Your task to perform on an android device: Open internet settings Image 0: 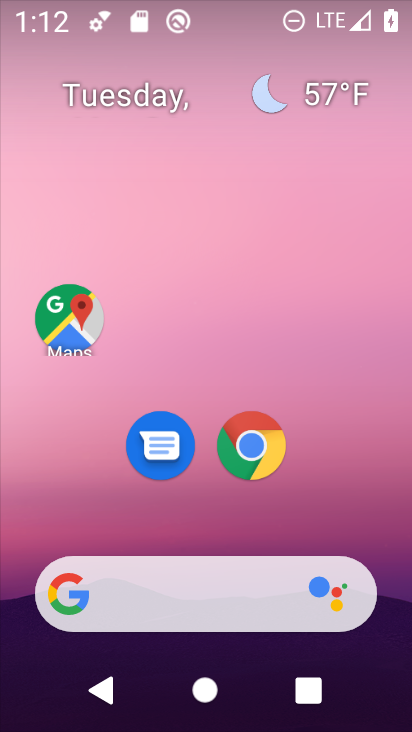
Step 0: drag from (375, 503) to (380, 189)
Your task to perform on an android device: Open internet settings Image 1: 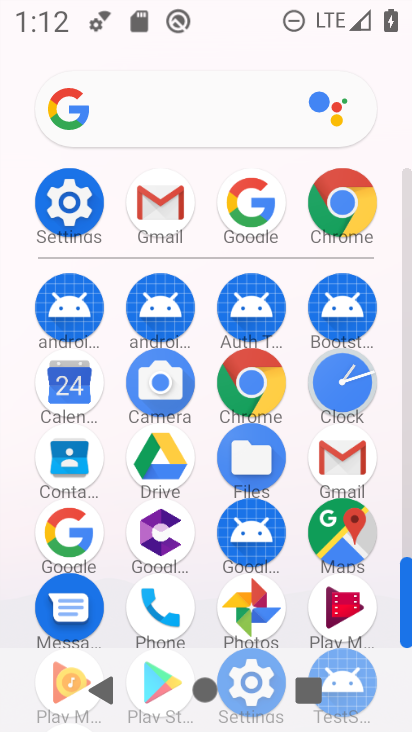
Step 1: click (70, 218)
Your task to perform on an android device: Open internet settings Image 2: 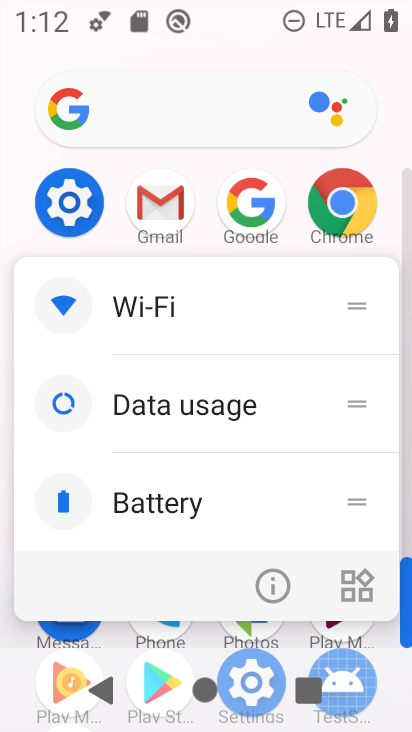
Step 2: click (70, 218)
Your task to perform on an android device: Open internet settings Image 3: 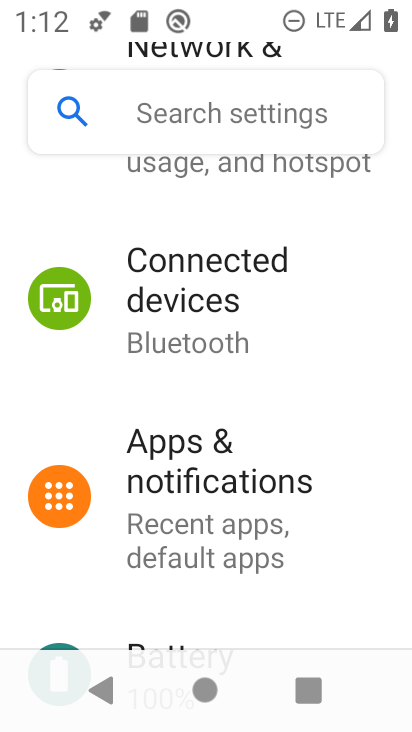
Step 3: drag from (338, 538) to (374, 431)
Your task to perform on an android device: Open internet settings Image 4: 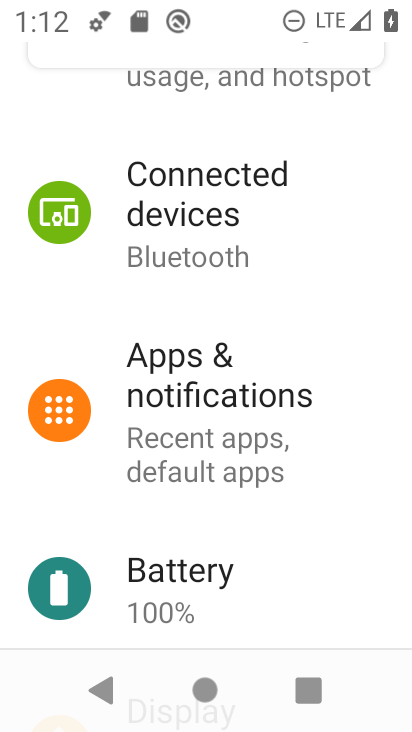
Step 4: drag from (383, 585) to (389, 431)
Your task to perform on an android device: Open internet settings Image 5: 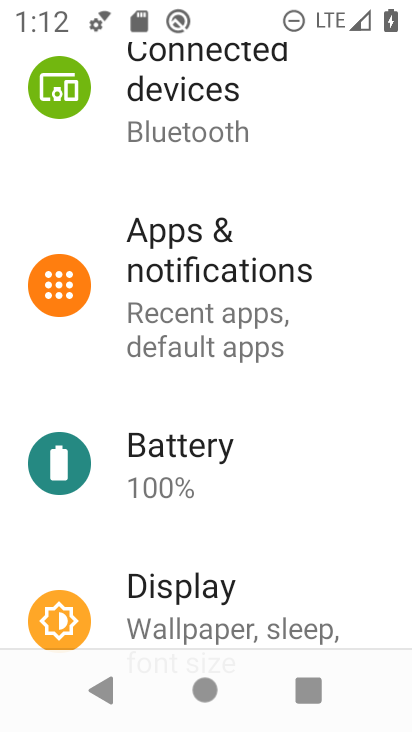
Step 5: drag from (358, 575) to (368, 423)
Your task to perform on an android device: Open internet settings Image 6: 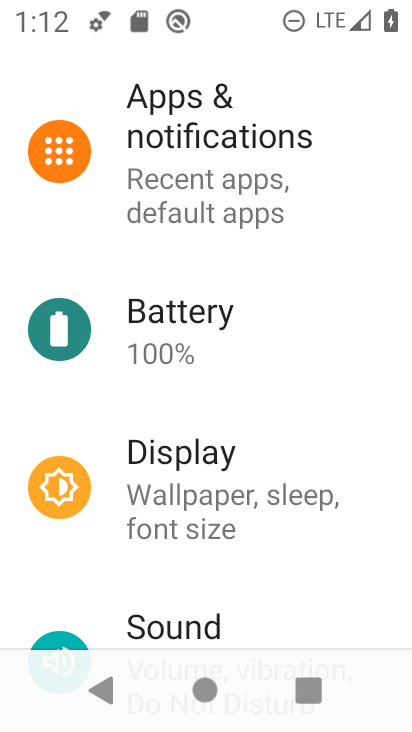
Step 6: drag from (373, 569) to (387, 460)
Your task to perform on an android device: Open internet settings Image 7: 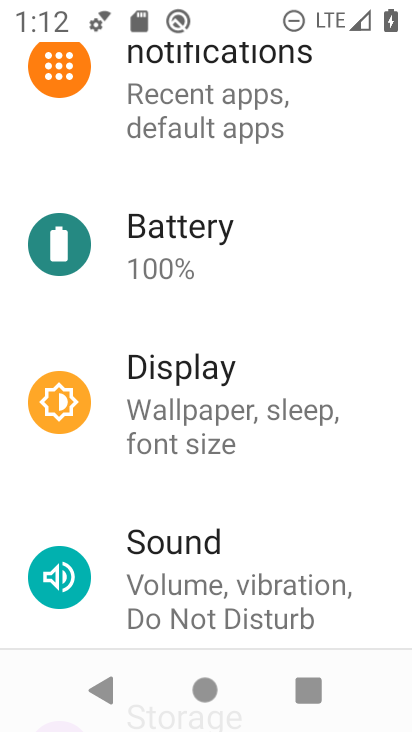
Step 7: drag from (356, 615) to (371, 486)
Your task to perform on an android device: Open internet settings Image 8: 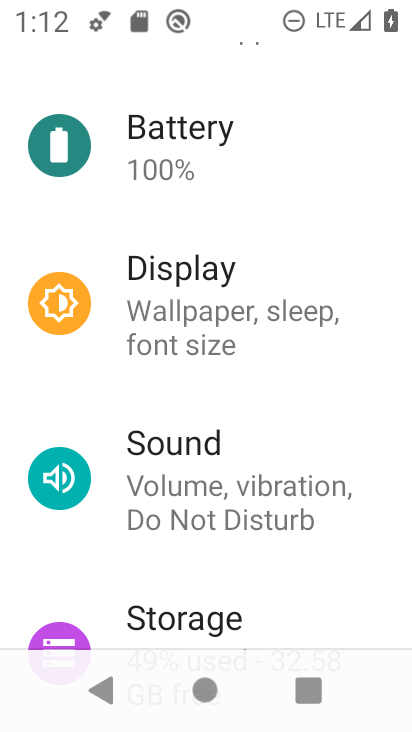
Step 8: drag from (378, 615) to (391, 479)
Your task to perform on an android device: Open internet settings Image 9: 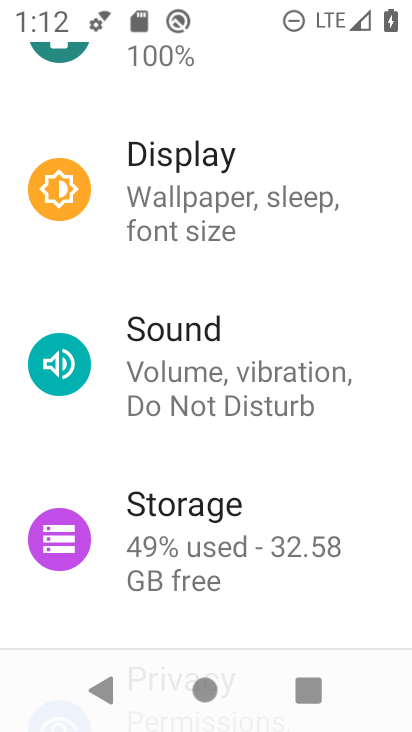
Step 9: drag from (372, 593) to (356, 400)
Your task to perform on an android device: Open internet settings Image 10: 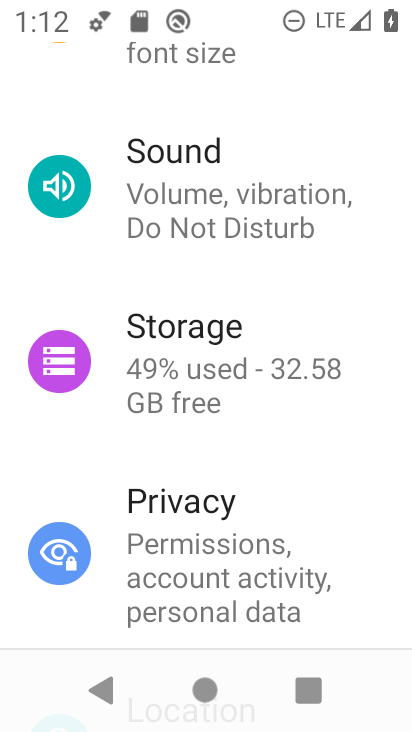
Step 10: drag from (366, 572) to (374, 406)
Your task to perform on an android device: Open internet settings Image 11: 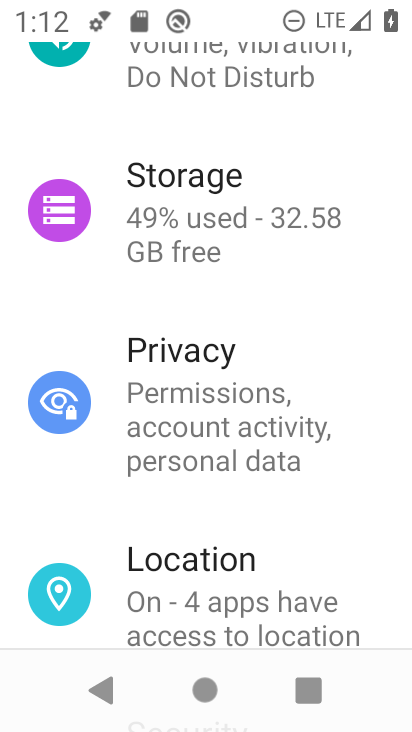
Step 11: drag from (346, 512) to (349, 336)
Your task to perform on an android device: Open internet settings Image 12: 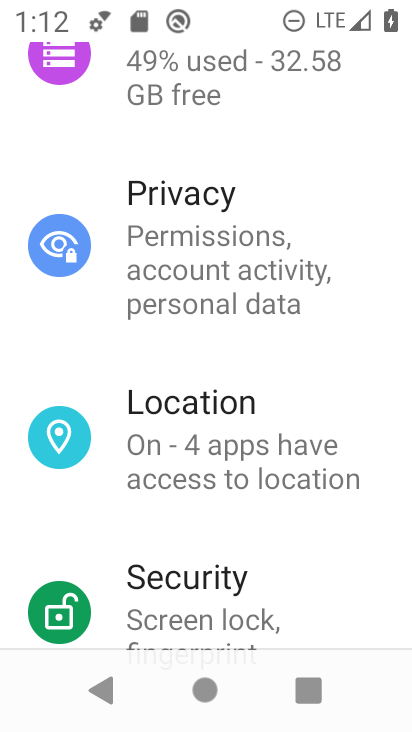
Step 12: drag from (369, 571) to (353, 400)
Your task to perform on an android device: Open internet settings Image 13: 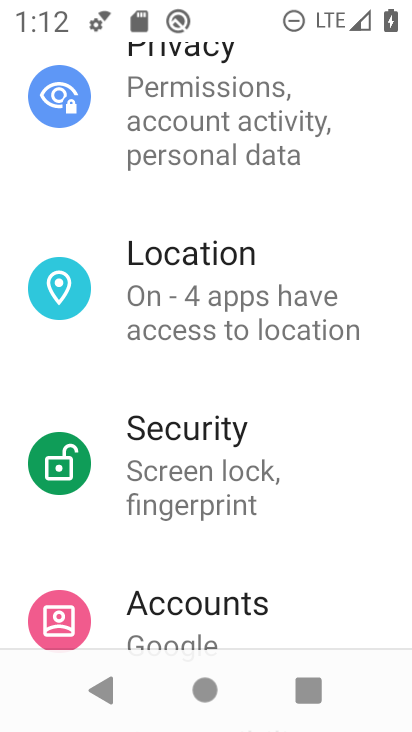
Step 13: drag from (338, 545) to (338, 365)
Your task to perform on an android device: Open internet settings Image 14: 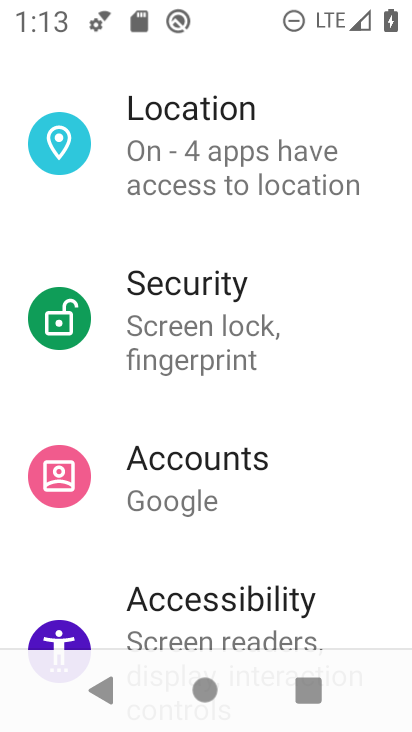
Step 14: drag from (347, 572) to (345, 422)
Your task to perform on an android device: Open internet settings Image 15: 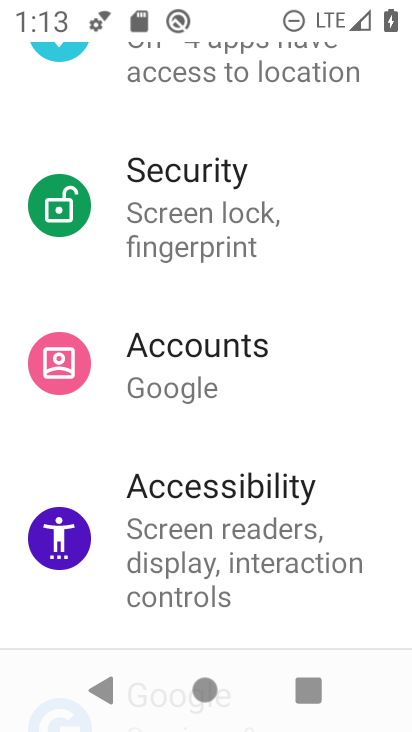
Step 15: drag from (363, 230) to (356, 410)
Your task to perform on an android device: Open internet settings Image 16: 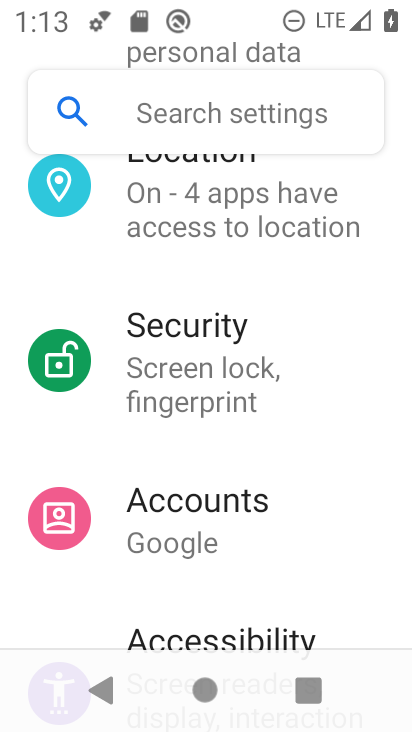
Step 16: drag from (369, 260) to (362, 414)
Your task to perform on an android device: Open internet settings Image 17: 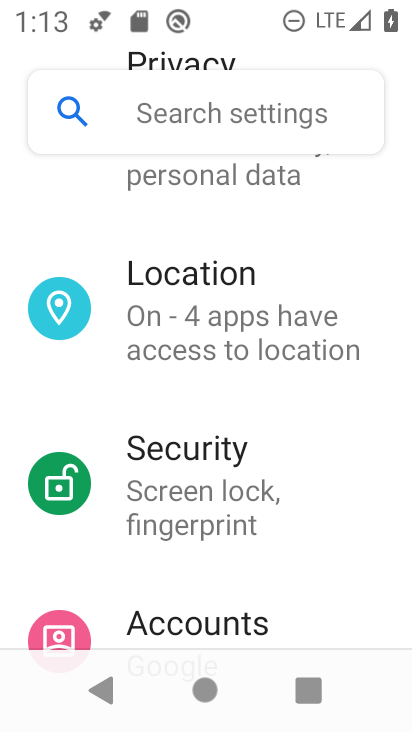
Step 17: drag from (361, 223) to (347, 461)
Your task to perform on an android device: Open internet settings Image 18: 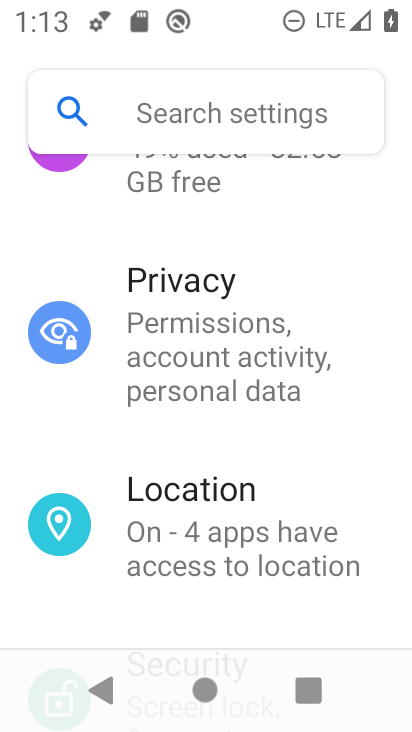
Step 18: drag from (366, 219) to (364, 447)
Your task to perform on an android device: Open internet settings Image 19: 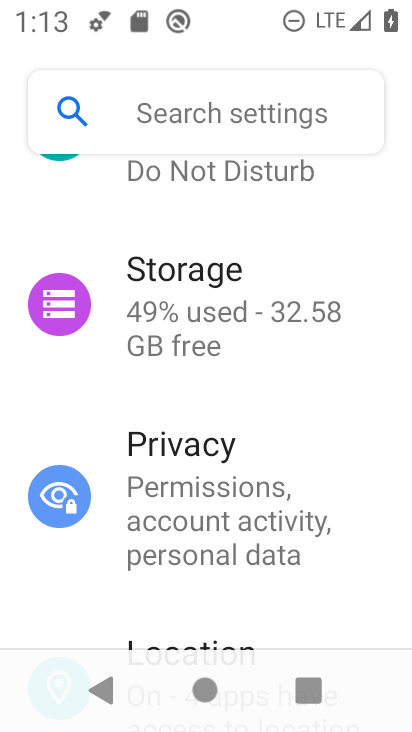
Step 19: drag from (368, 198) to (366, 424)
Your task to perform on an android device: Open internet settings Image 20: 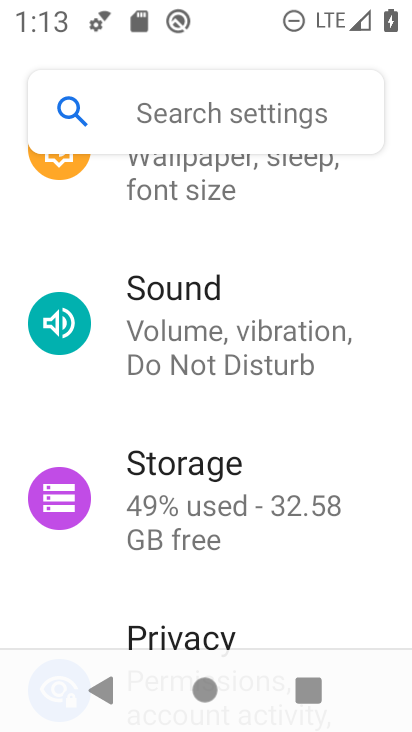
Step 20: drag from (366, 194) to (367, 386)
Your task to perform on an android device: Open internet settings Image 21: 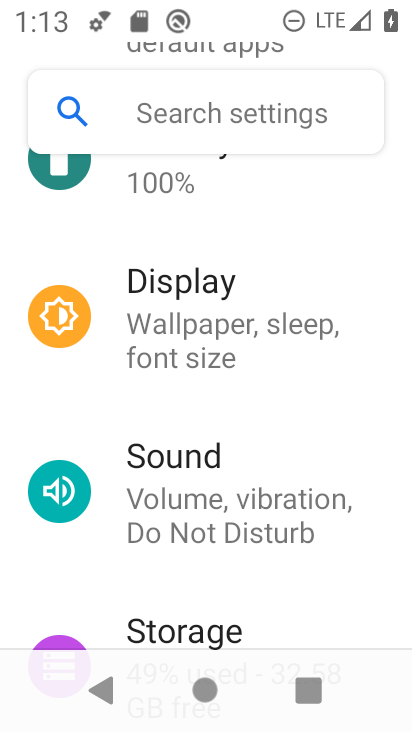
Step 21: drag from (362, 185) to (368, 348)
Your task to perform on an android device: Open internet settings Image 22: 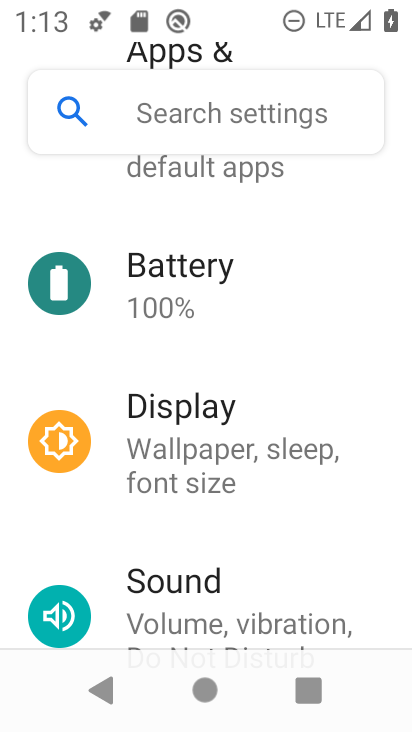
Step 22: drag from (363, 181) to (364, 342)
Your task to perform on an android device: Open internet settings Image 23: 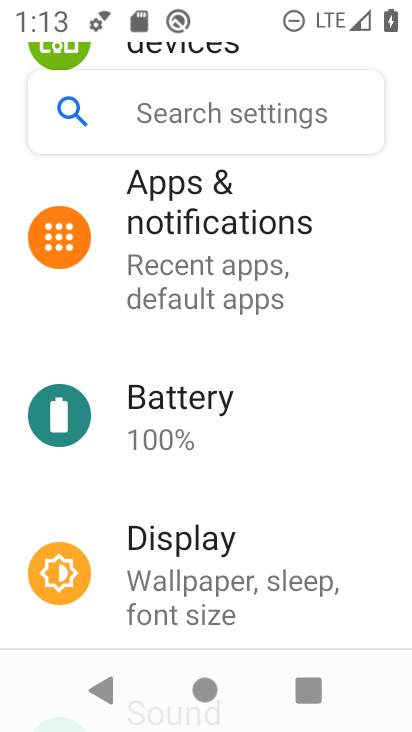
Step 23: drag from (358, 183) to (355, 332)
Your task to perform on an android device: Open internet settings Image 24: 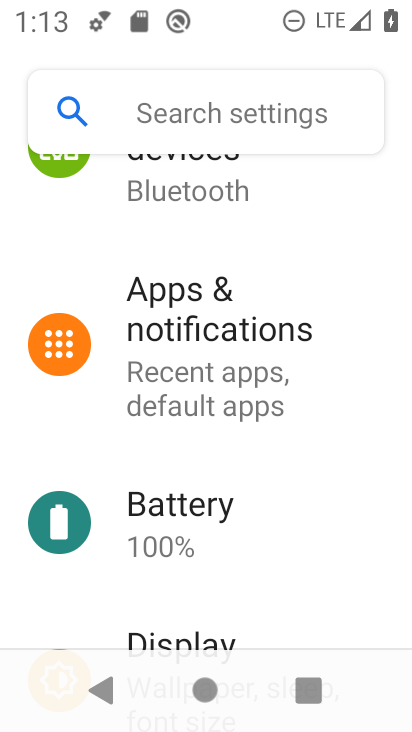
Step 24: drag from (348, 172) to (335, 341)
Your task to perform on an android device: Open internet settings Image 25: 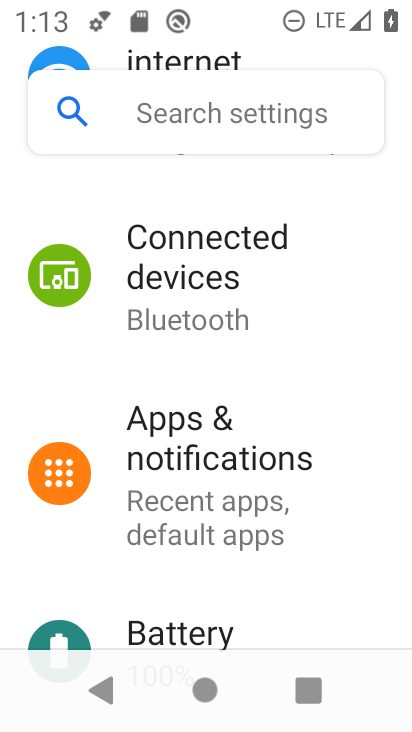
Step 25: drag from (346, 189) to (336, 337)
Your task to perform on an android device: Open internet settings Image 26: 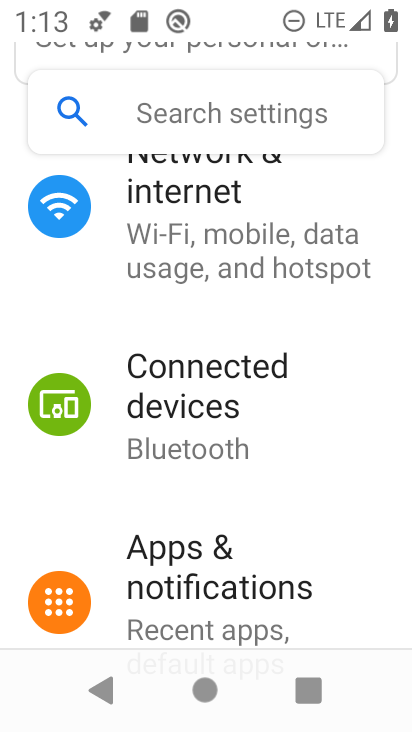
Step 26: drag from (368, 181) to (338, 342)
Your task to perform on an android device: Open internet settings Image 27: 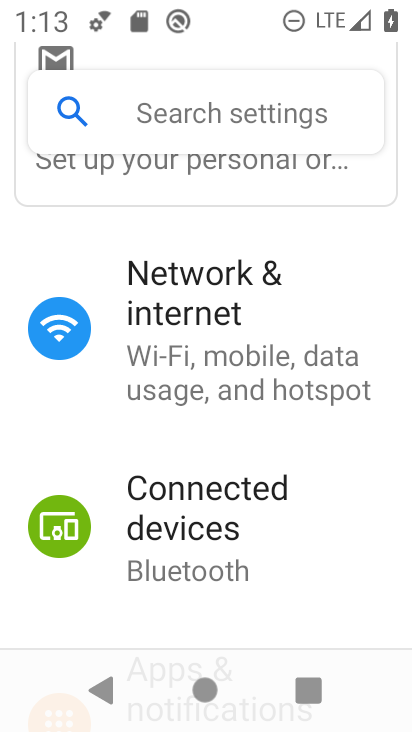
Step 27: click (256, 353)
Your task to perform on an android device: Open internet settings Image 28: 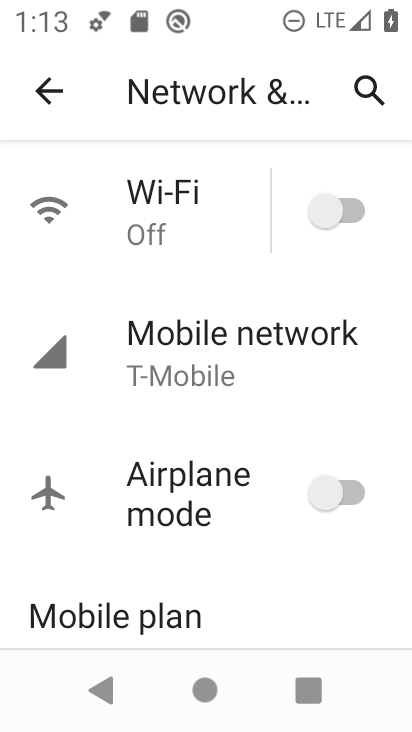
Step 28: task complete